Your task to perform on an android device: Go to CNN.com Image 0: 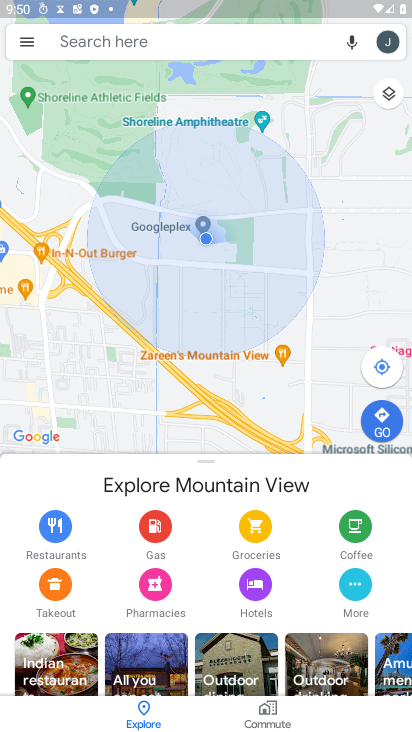
Step 0: press home button
Your task to perform on an android device: Go to CNN.com Image 1: 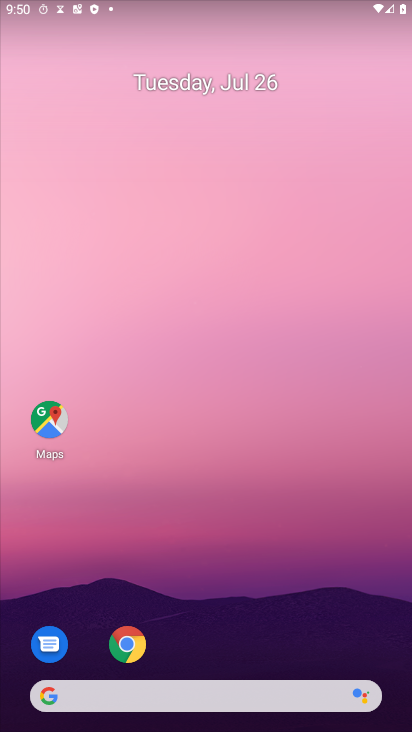
Step 1: click (127, 637)
Your task to perform on an android device: Go to CNN.com Image 2: 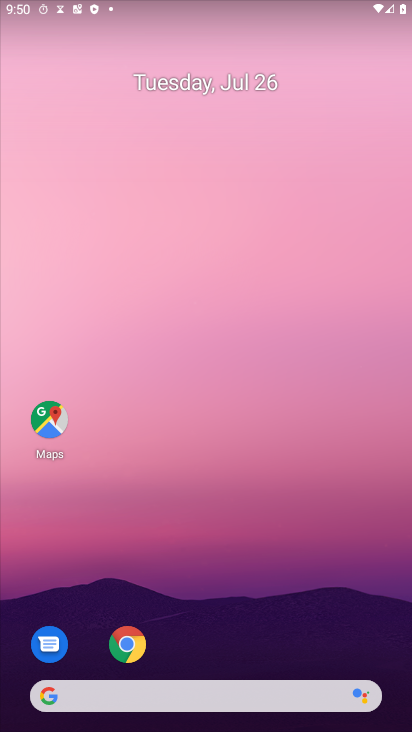
Step 2: click (127, 650)
Your task to perform on an android device: Go to CNN.com Image 3: 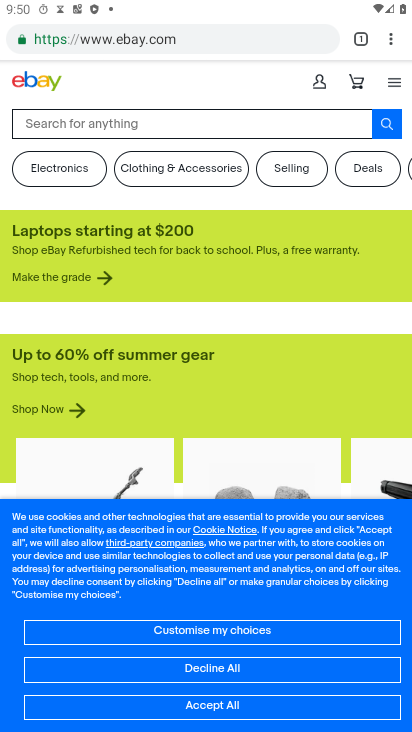
Step 3: click (153, 39)
Your task to perform on an android device: Go to CNN.com Image 4: 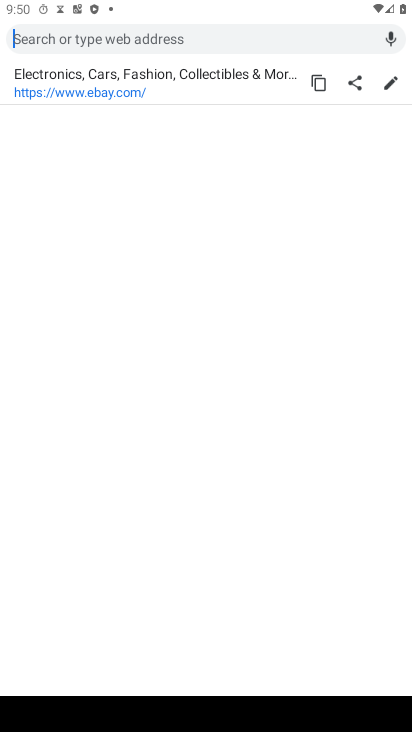
Step 4: type "CNN.com"
Your task to perform on an android device: Go to CNN.com Image 5: 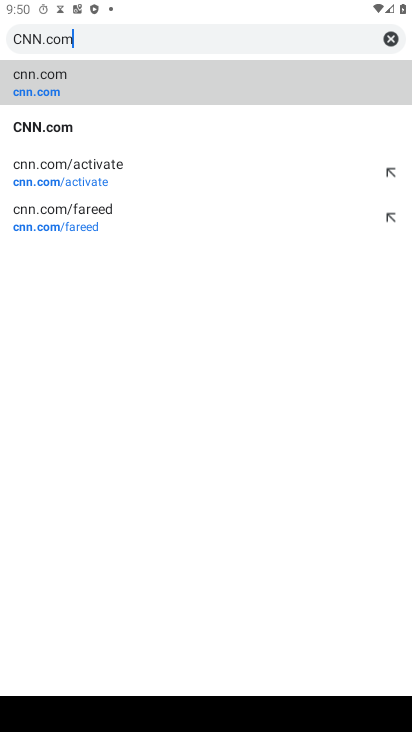
Step 5: click (68, 130)
Your task to perform on an android device: Go to CNN.com Image 6: 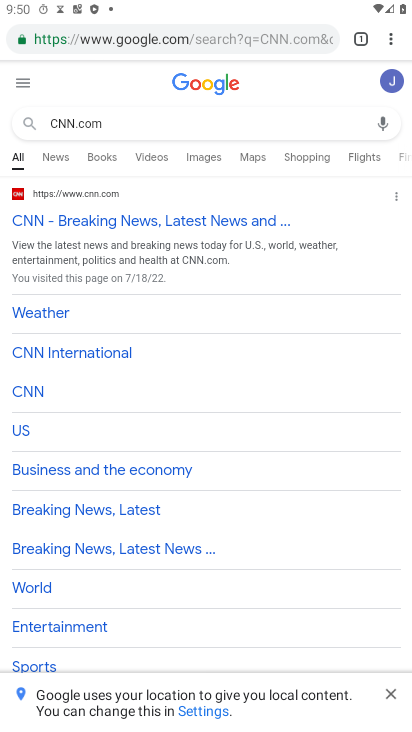
Step 6: task complete